Your task to perform on an android device: change the upload size in google photos Image 0: 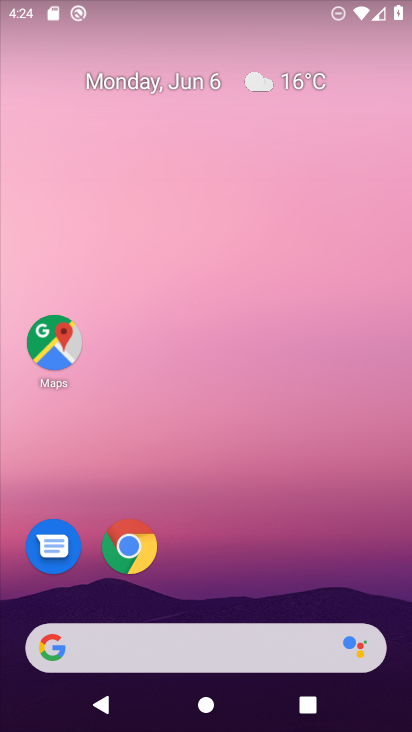
Step 0: drag from (209, 605) to (280, 46)
Your task to perform on an android device: change the upload size in google photos Image 1: 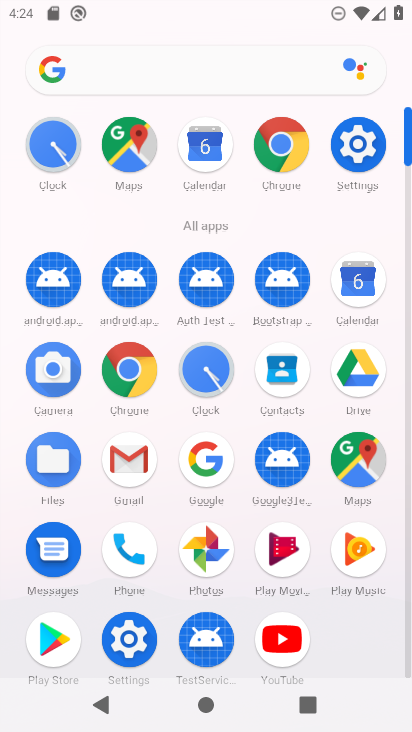
Step 1: click (222, 561)
Your task to perform on an android device: change the upload size in google photos Image 2: 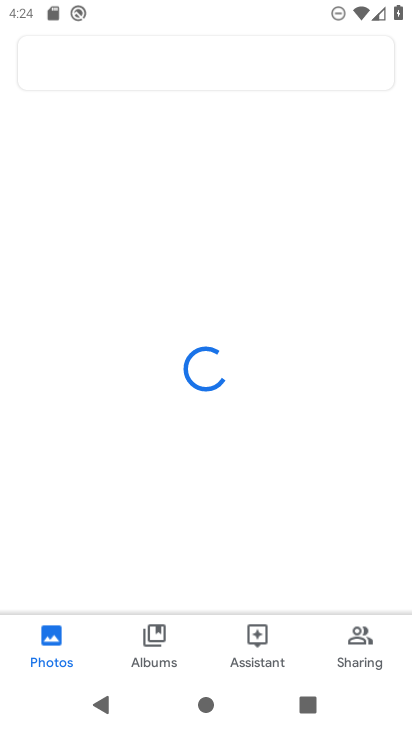
Step 2: click (47, 56)
Your task to perform on an android device: change the upload size in google photos Image 3: 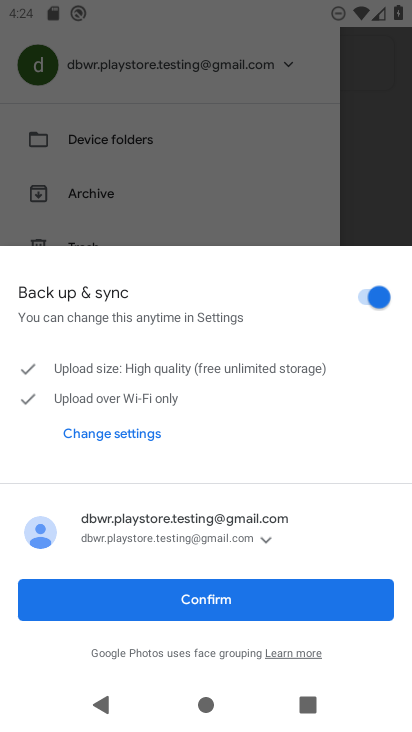
Step 3: click (231, 599)
Your task to perform on an android device: change the upload size in google photos Image 4: 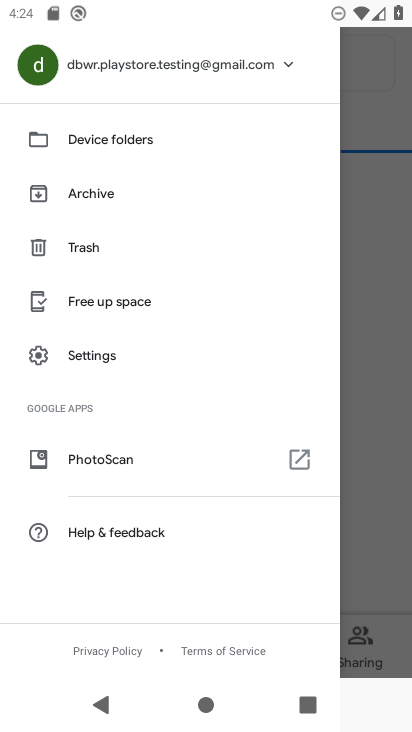
Step 4: click (57, 351)
Your task to perform on an android device: change the upload size in google photos Image 5: 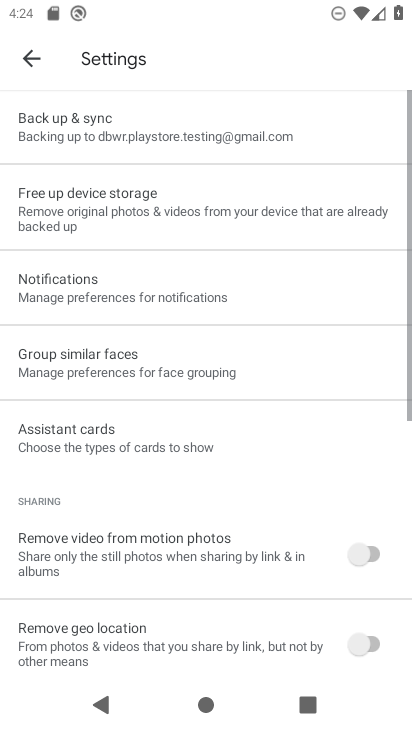
Step 5: drag from (293, 554) to (288, 420)
Your task to perform on an android device: change the upload size in google photos Image 6: 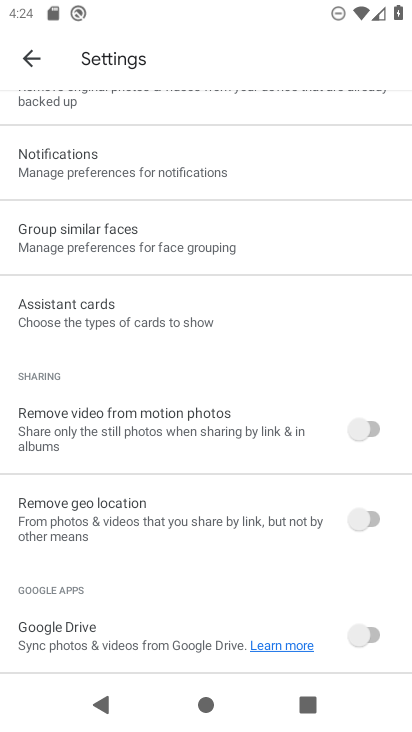
Step 6: drag from (213, 200) to (198, 528)
Your task to perform on an android device: change the upload size in google photos Image 7: 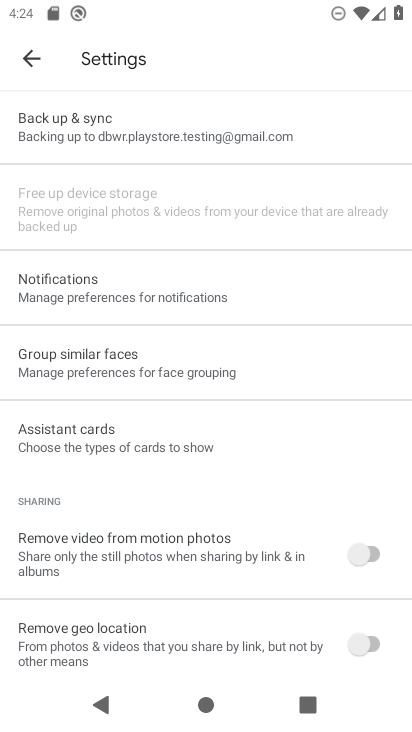
Step 7: click (112, 129)
Your task to perform on an android device: change the upload size in google photos Image 8: 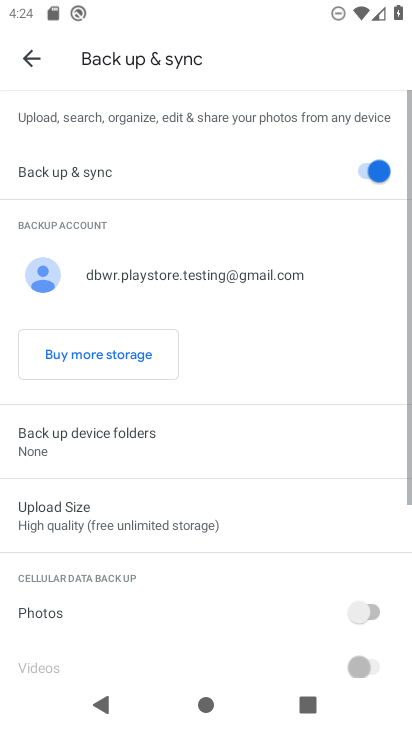
Step 8: click (134, 508)
Your task to perform on an android device: change the upload size in google photos Image 9: 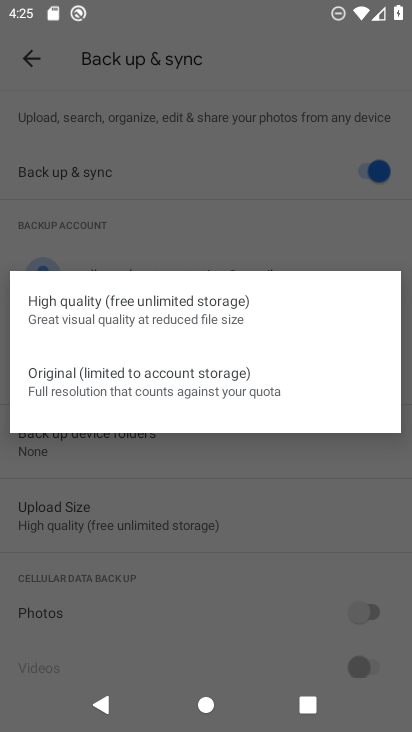
Step 9: click (163, 401)
Your task to perform on an android device: change the upload size in google photos Image 10: 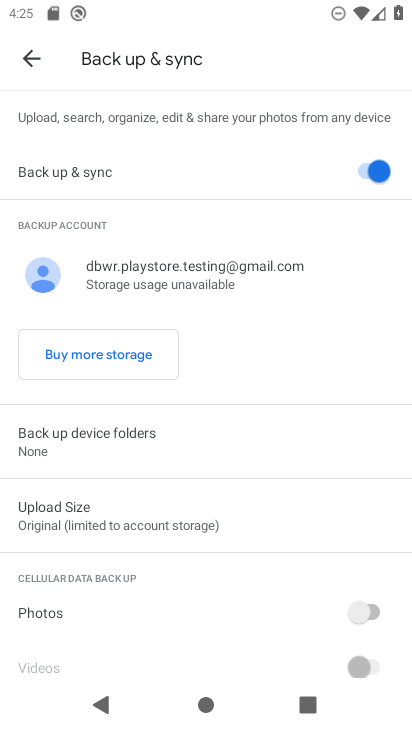
Step 10: task complete